Your task to perform on an android device: Open Yahoo.com Image 0: 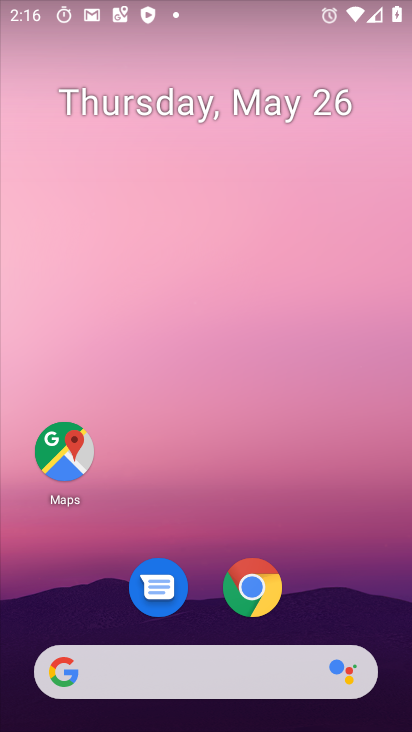
Step 0: drag from (203, 694) to (249, 199)
Your task to perform on an android device: Open Yahoo.com Image 1: 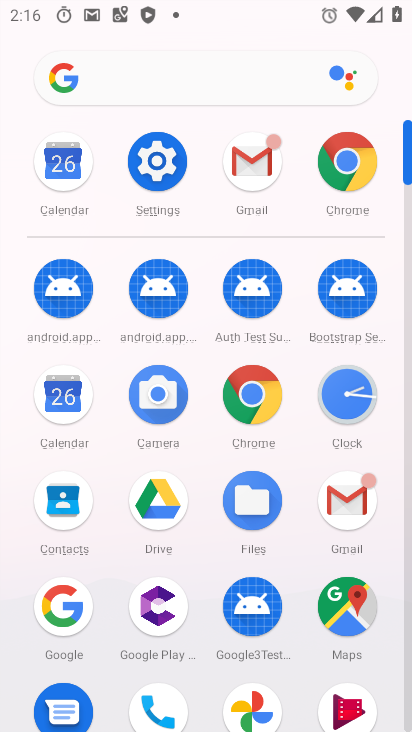
Step 1: click (243, 412)
Your task to perform on an android device: Open Yahoo.com Image 2: 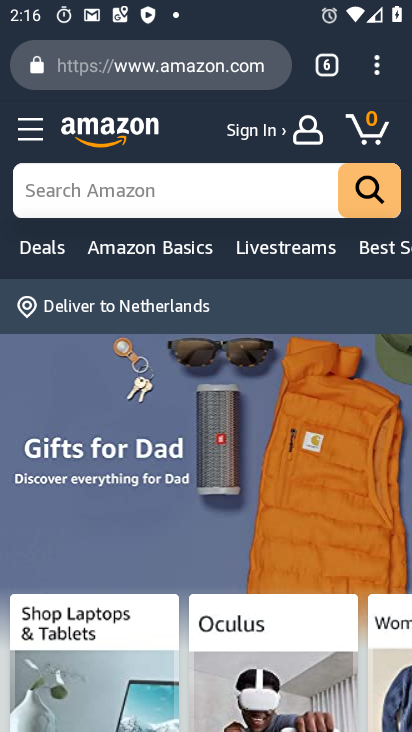
Step 2: click (227, 67)
Your task to perform on an android device: Open Yahoo.com Image 3: 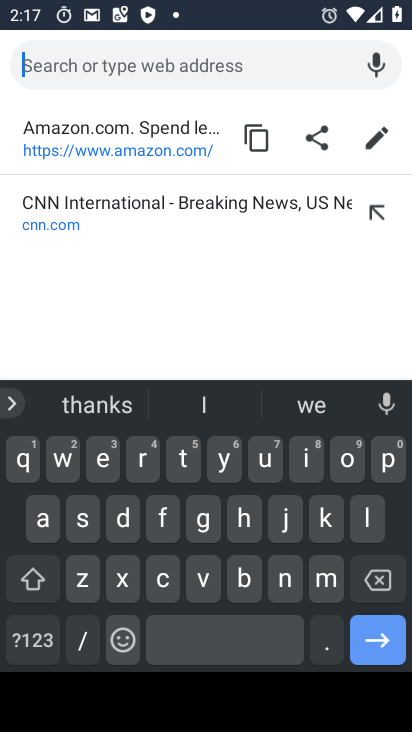
Step 3: click (221, 460)
Your task to perform on an android device: Open Yahoo.com Image 4: 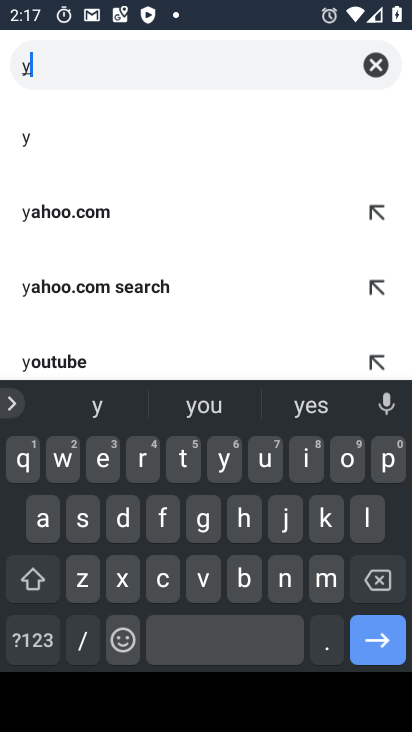
Step 4: click (132, 214)
Your task to perform on an android device: Open Yahoo.com Image 5: 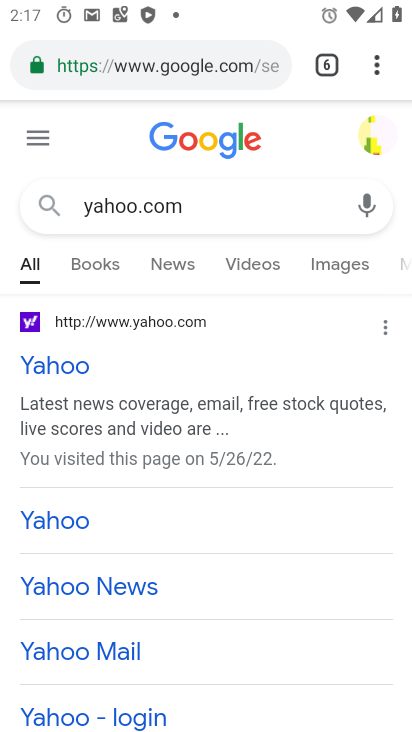
Step 5: click (71, 363)
Your task to perform on an android device: Open Yahoo.com Image 6: 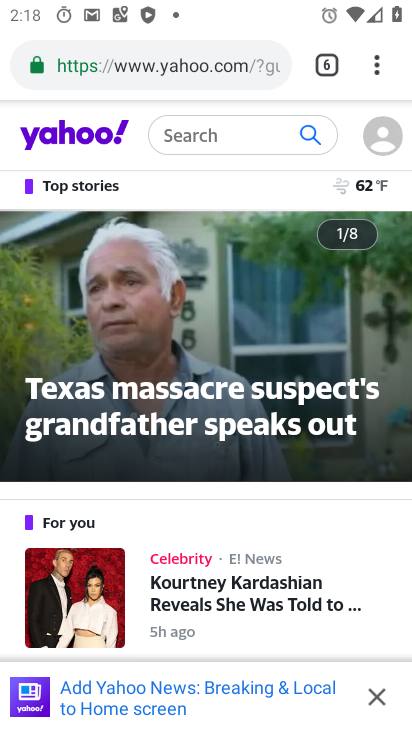
Step 6: task complete